Your task to perform on an android device: change alarm snooze length Image 0: 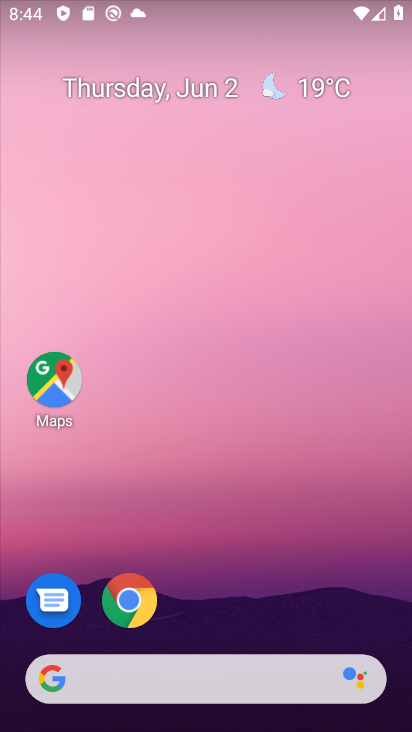
Step 0: drag from (191, 621) to (231, 202)
Your task to perform on an android device: change alarm snooze length Image 1: 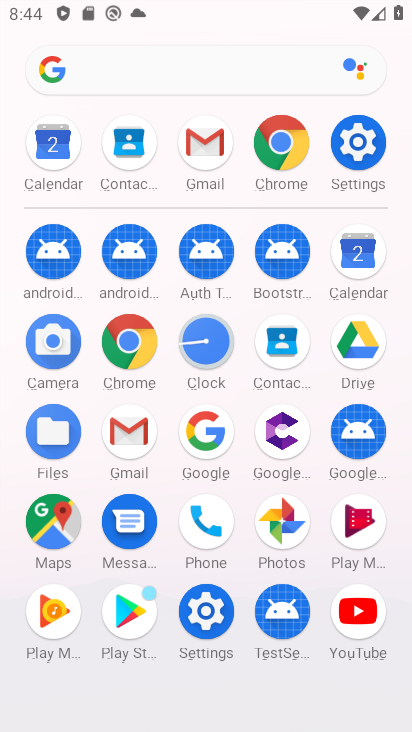
Step 1: click (211, 351)
Your task to perform on an android device: change alarm snooze length Image 2: 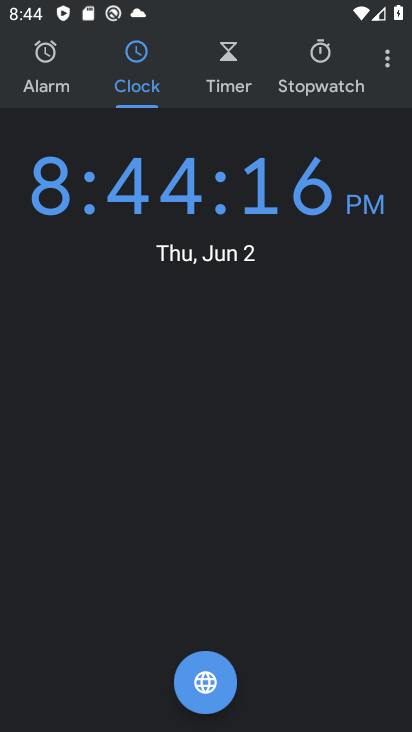
Step 2: click (387, 59)
Your task to perform on an android device: change alarm snooze length Image 3: 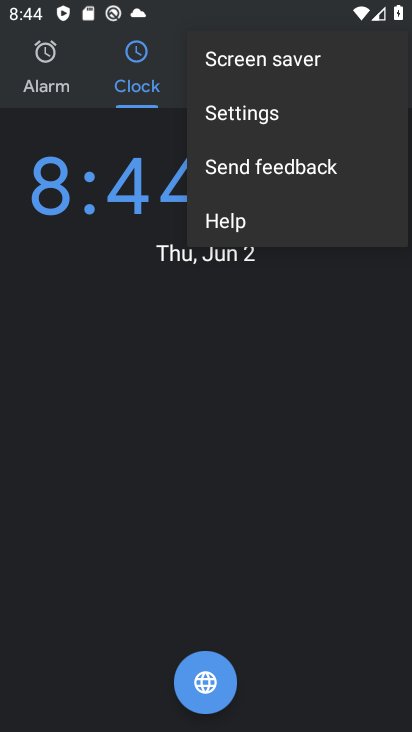
Step 3: click (299, 118)
Your task to perform on an android device: change alarm snooze length Image 4: 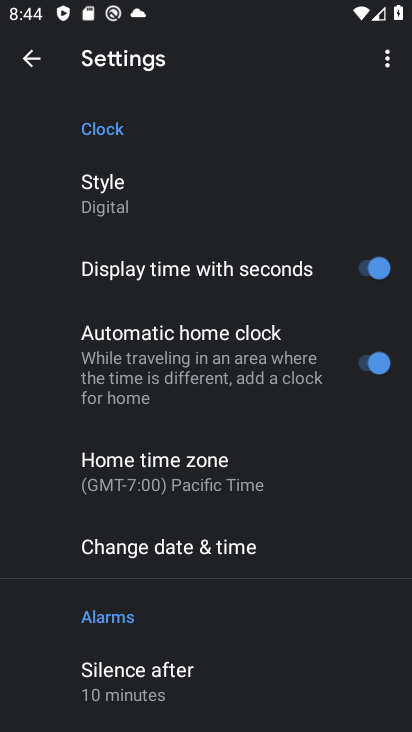
Step 4: drag from (237, 687) to (241, 335)
Your task to perform on an android device: change alarm snooze length Image 5: 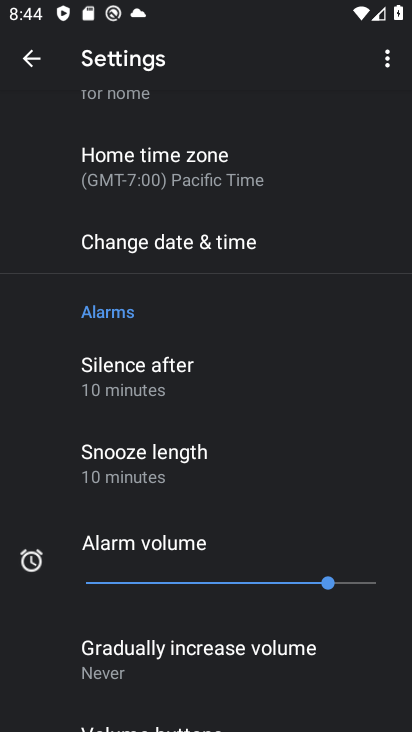
Step 5: click (192, 442)
Your task to perform on an android device: change alarm snooze length Image 6: 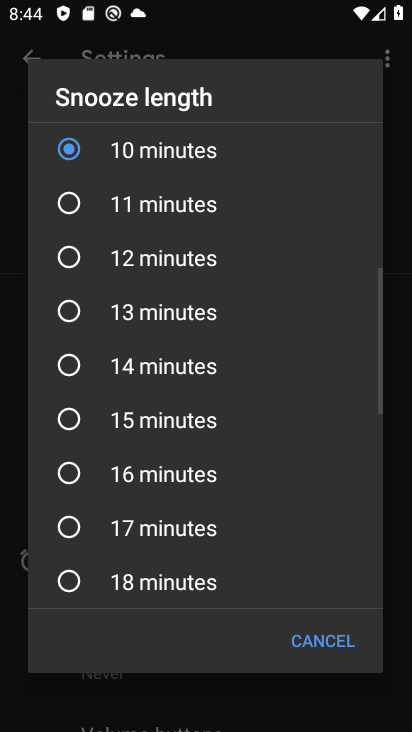
Step 6: click (164, 366)
Your task to perform on an android device: change alarm snooze length Image 7: 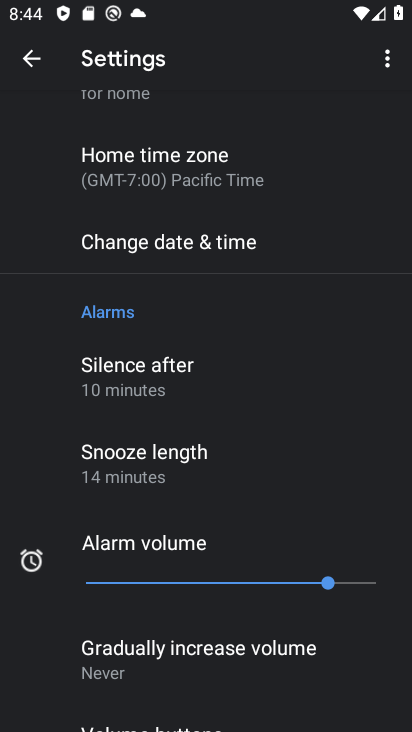
Step 7: task complete